Your task to perform on an android device: Search for flights from NYC to Chicago Image 0: 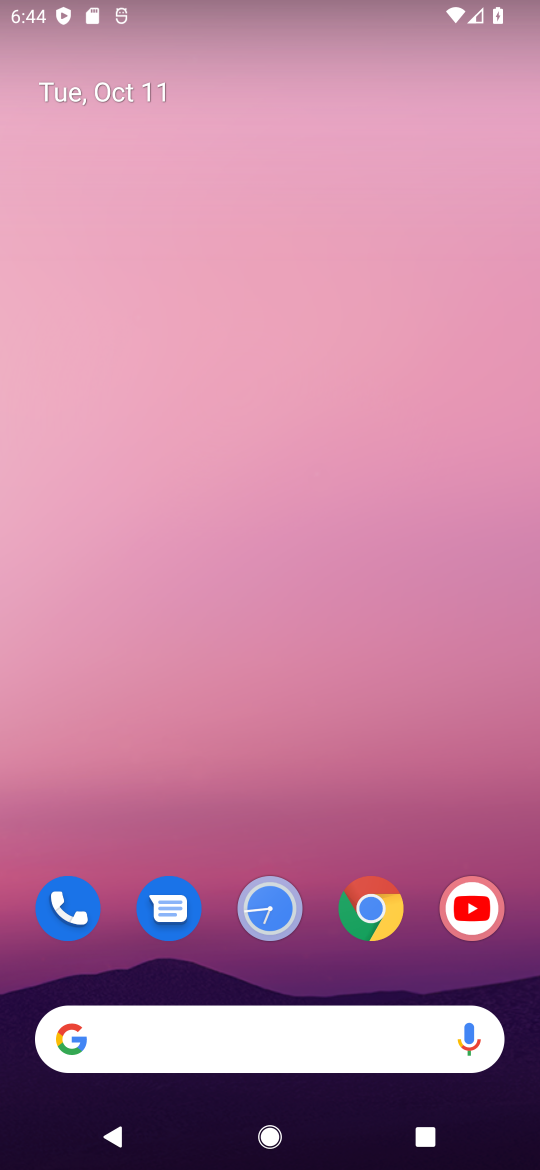
Step 0: click (258, 1026)
Your task to perform on an android device: Search for flights from NYC to Chicago Image 1: 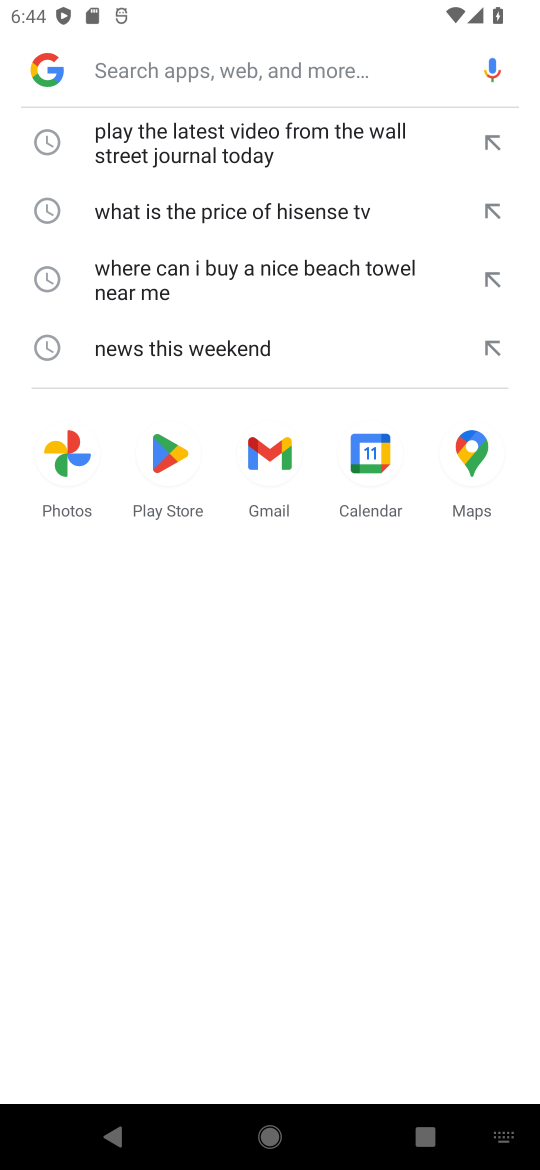
Step 1: type "flights from NYC to Chicago"
Your task to perform on an android device: Search for flights from NYC to Chicago Image 2: 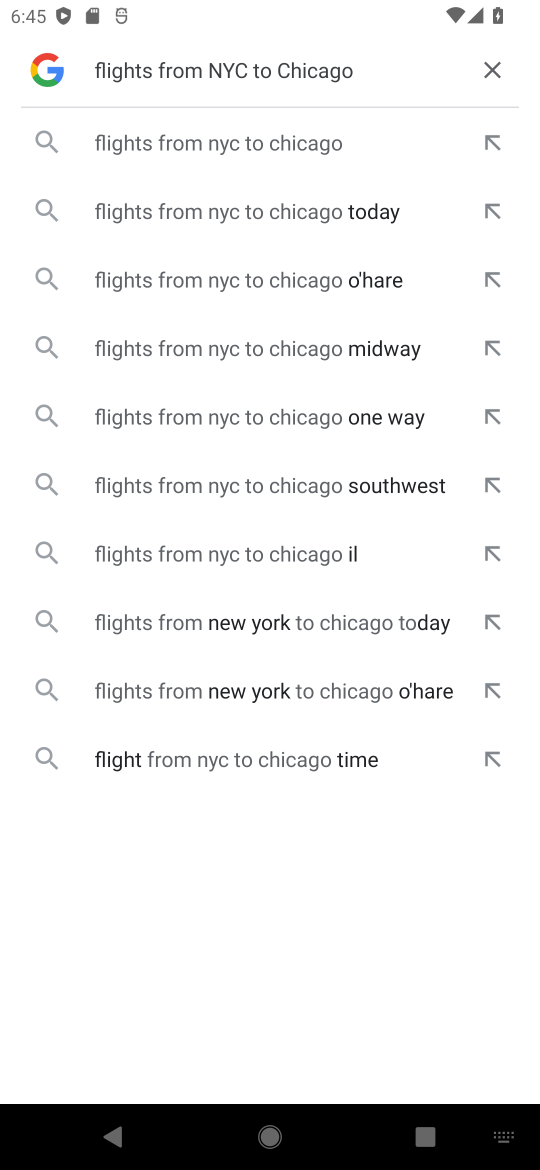
Step 2: click (262, 145)
Your task to perform on an android device: Search for flights from NYC to Chicago Image 3: 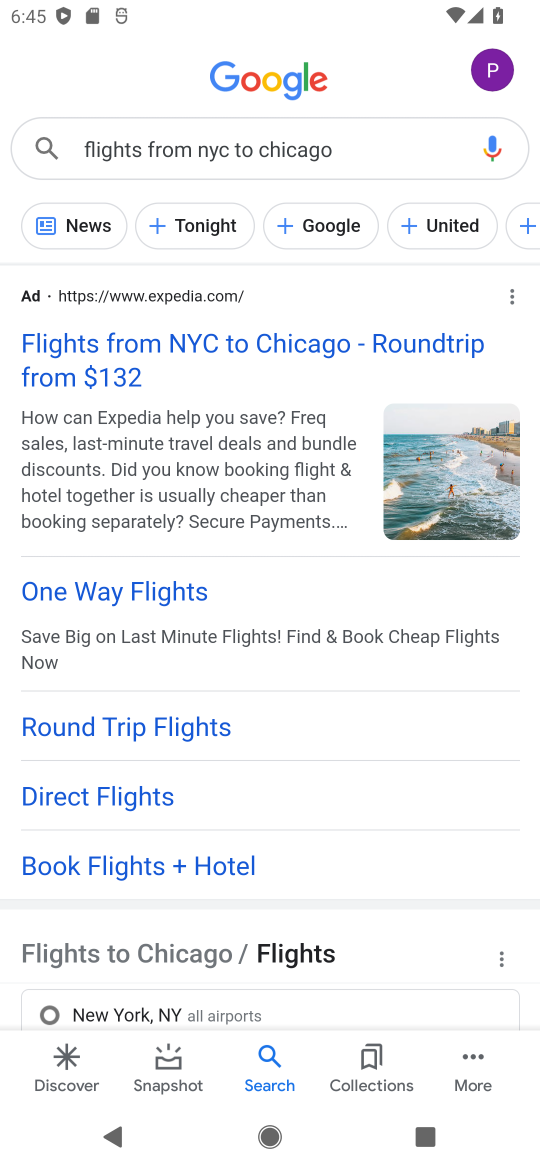
Step 3: click (224, 327)
Your task to perform on an android device: Search for flights from NYC to Chicago Image 4: 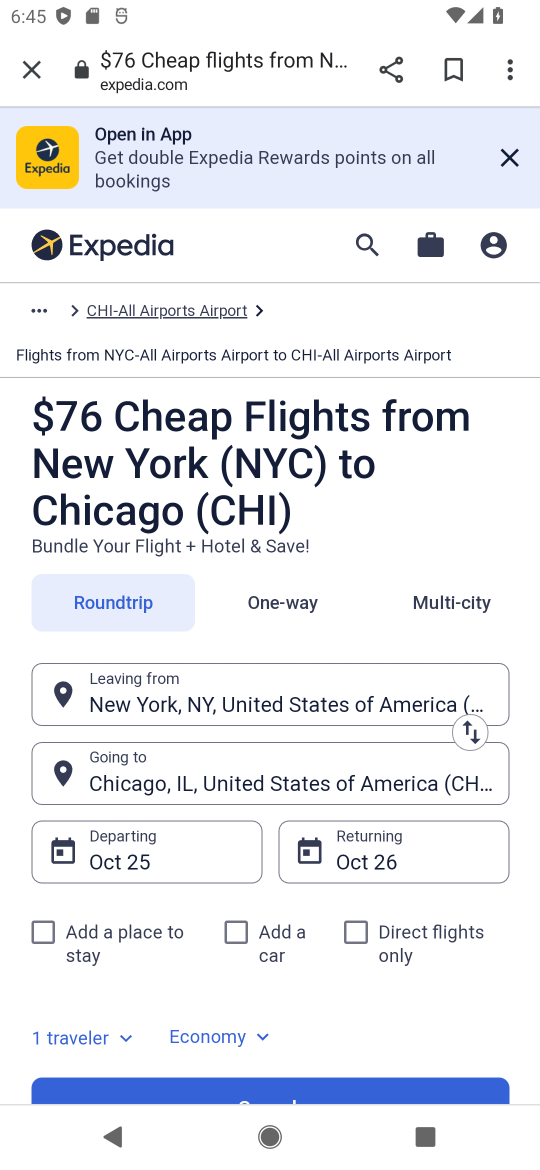
Step 4: drag from (331, 1010) to (323, 793)
Your task to perform on an android device: Search for flights from NYC to Chicago Image 5: 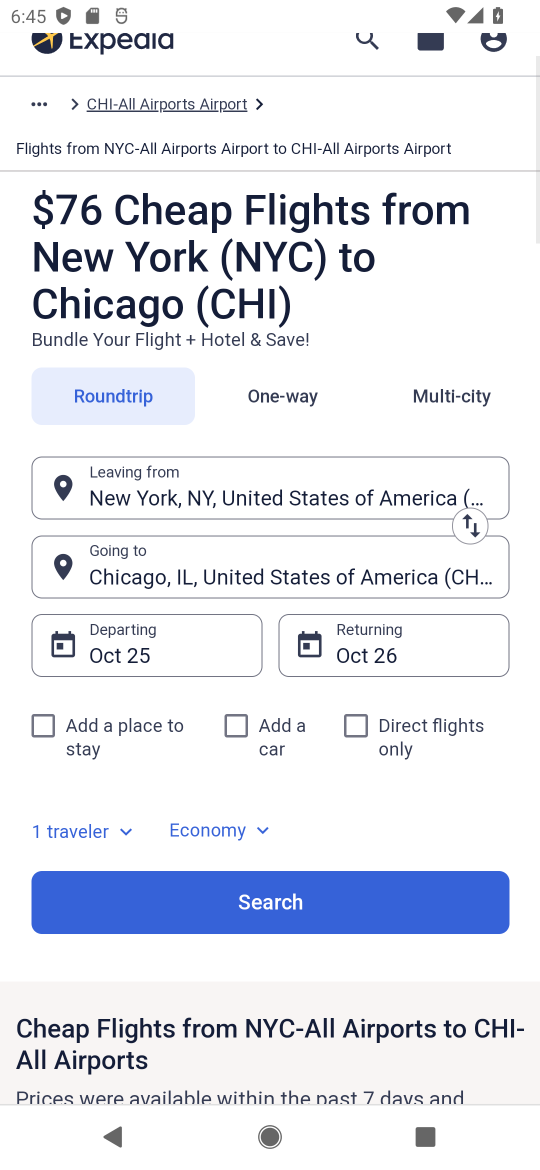
Step 5: click (272, 907)
Your task to perform on an android device: Search for flights from NYC to Chicago Image 6: 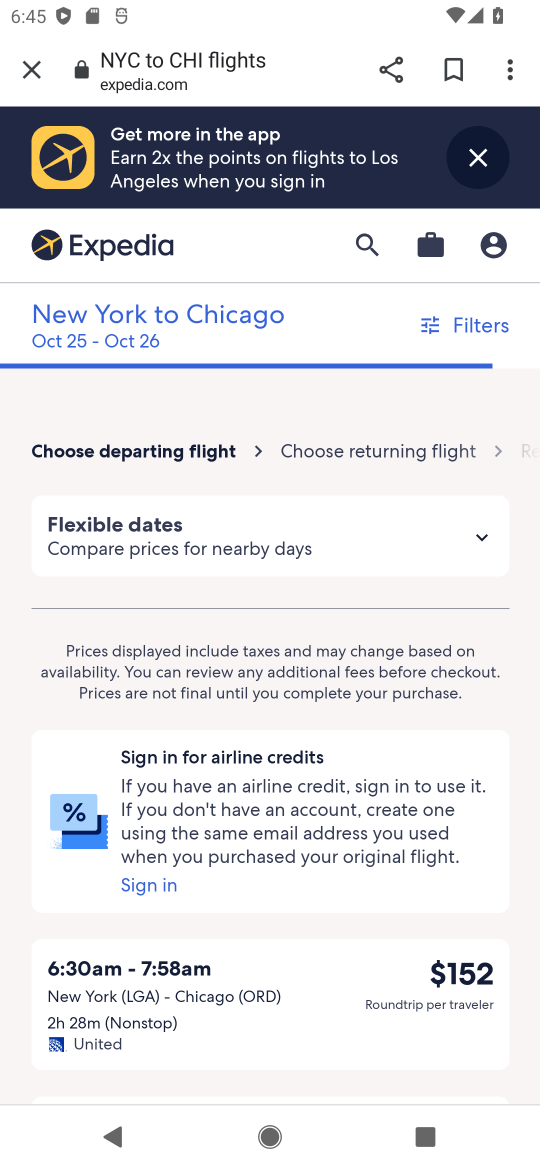
Step 6: task complete